Your task to perform on an android device: install app "Messenger Lite" Image 0: 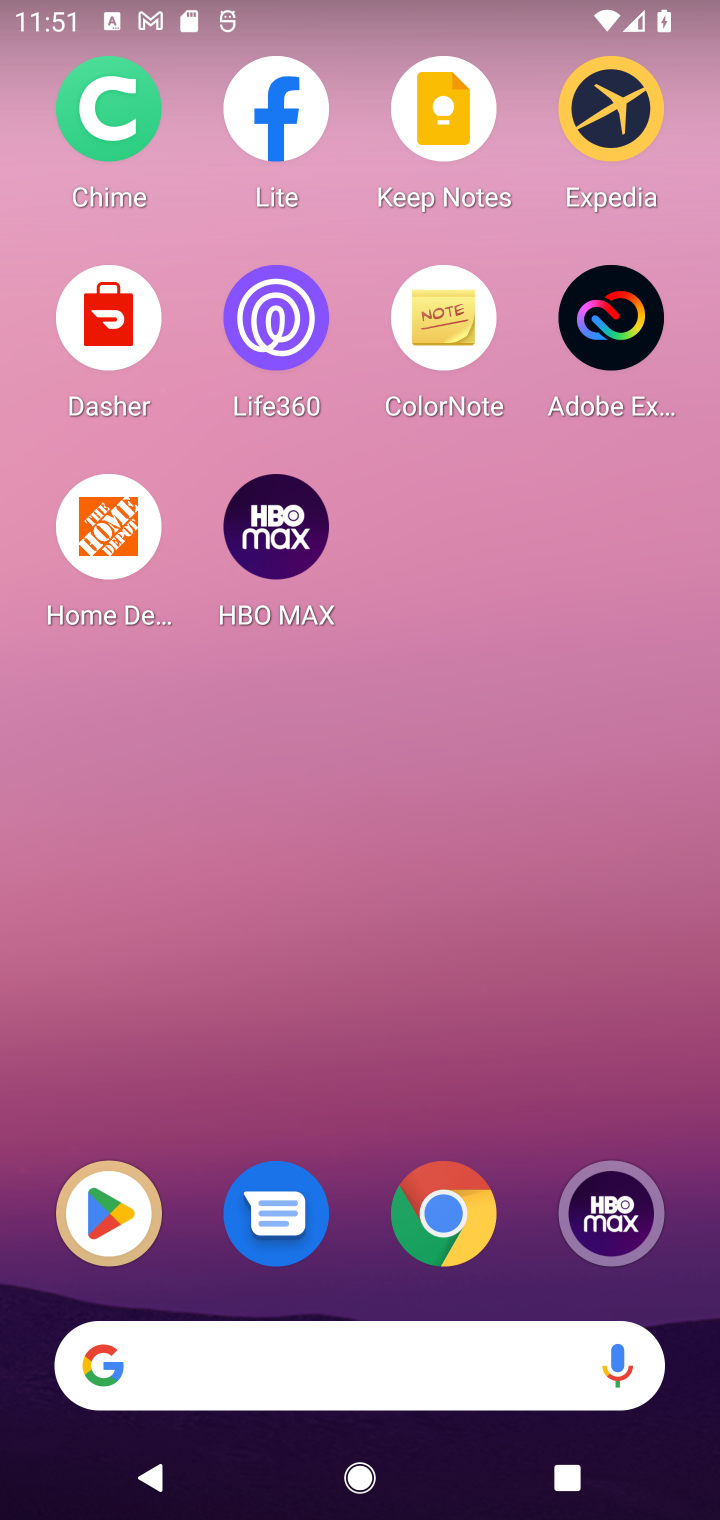
Step 0: click (107, 1233)
Your task to perform on an android device: install app "Messenger Lite" Image 1: 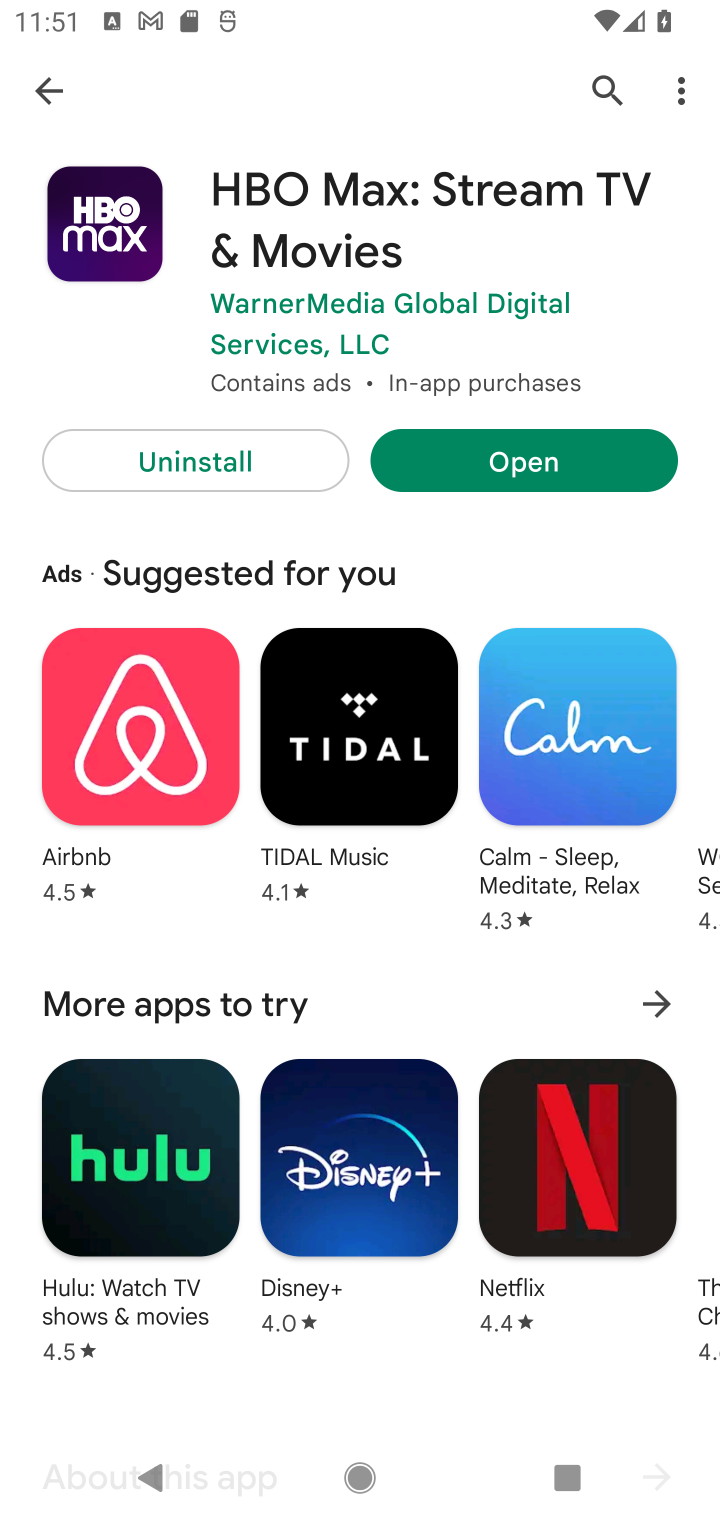
Step 1: click (38, 99)
Your task to perform on an android device: install app "Messenger Lite" Image 2: 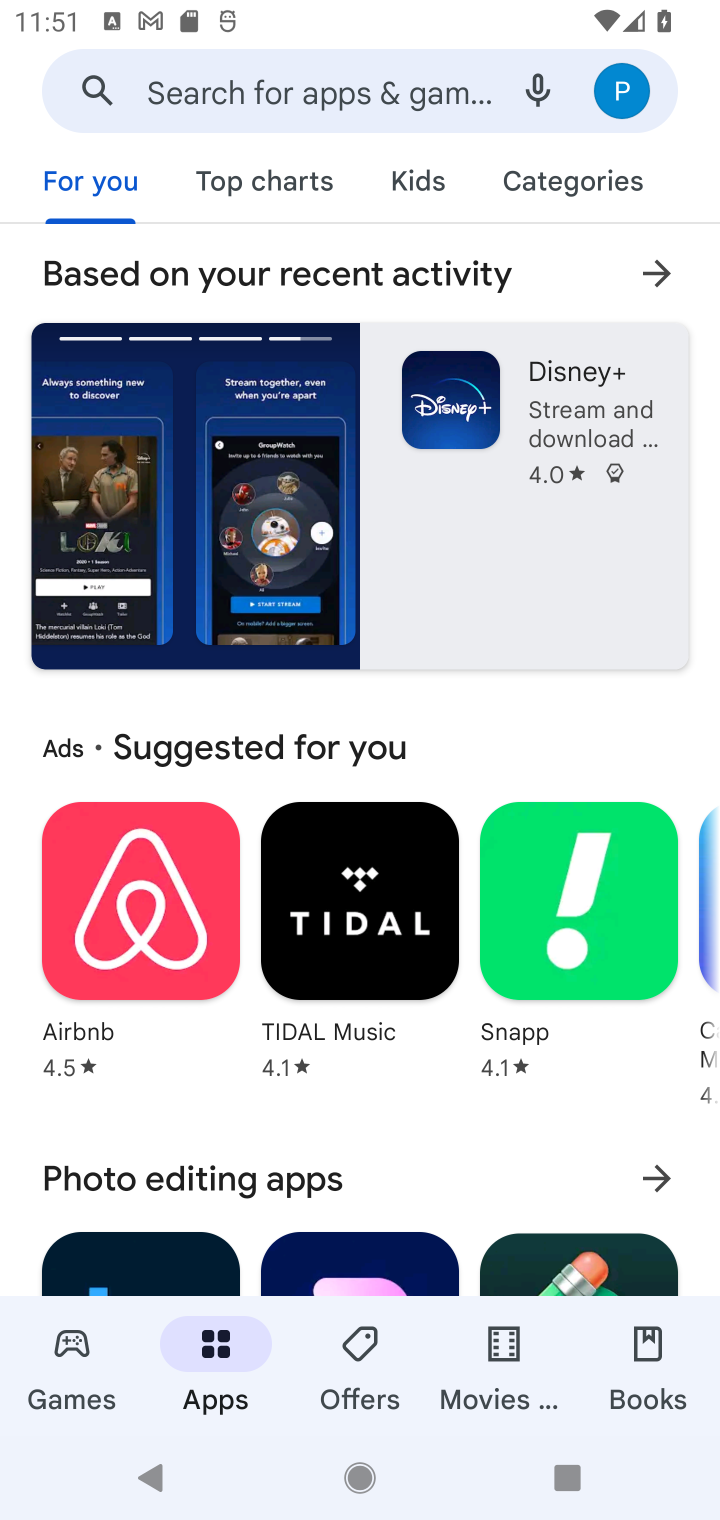
Step 2: click (311, 84)
Your task to perform on an android device: install app "Messenger Lite" Image 3: 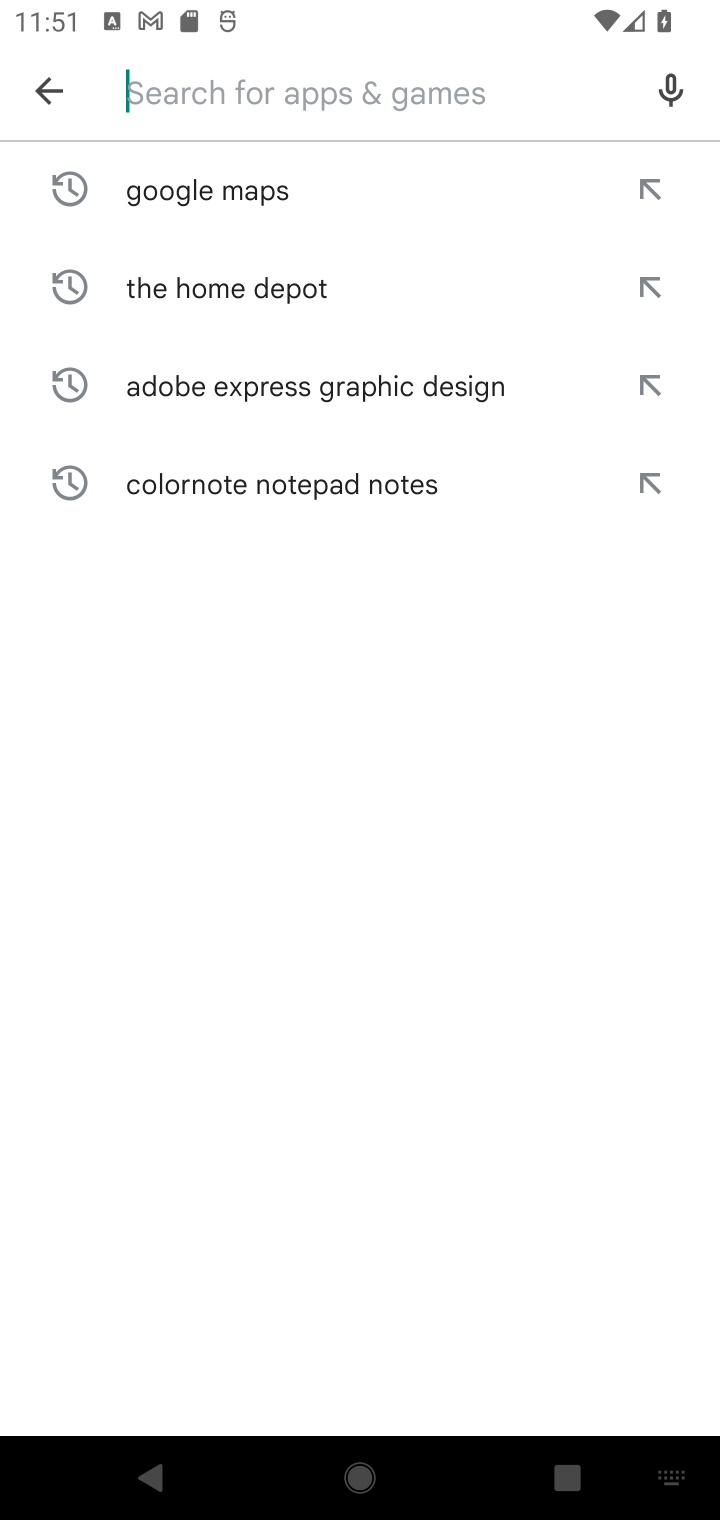
Step 3: type "Messenger Lite"
Your task to perform on an android device: install app "Messenger Lite" Image 4: 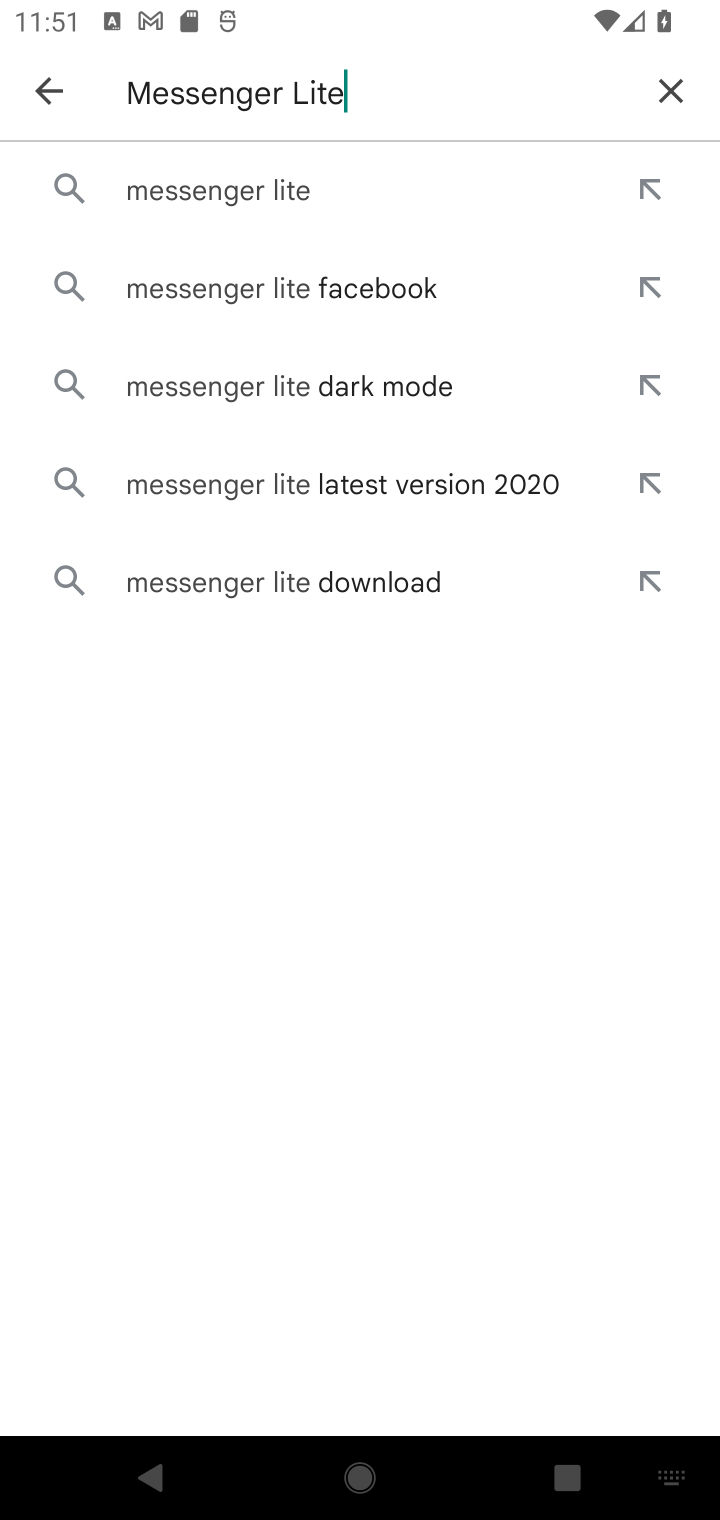
Step 4: click (261, 183)
Your task to perform on an android device: install app "Messenger Lite" Image 5: 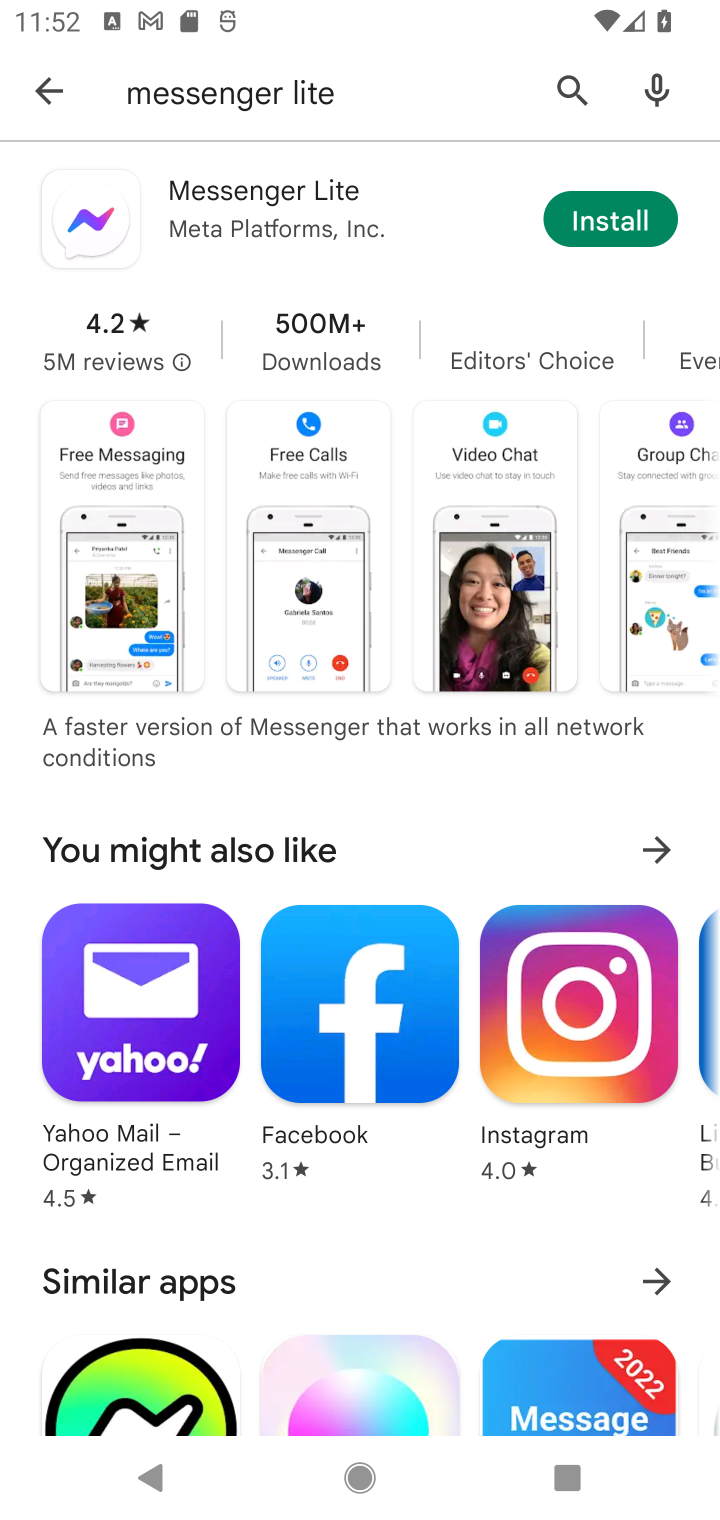
Step 5: click (595, 225)
Your task to perform on an android device: install app "Messenger Lite" Image 6: 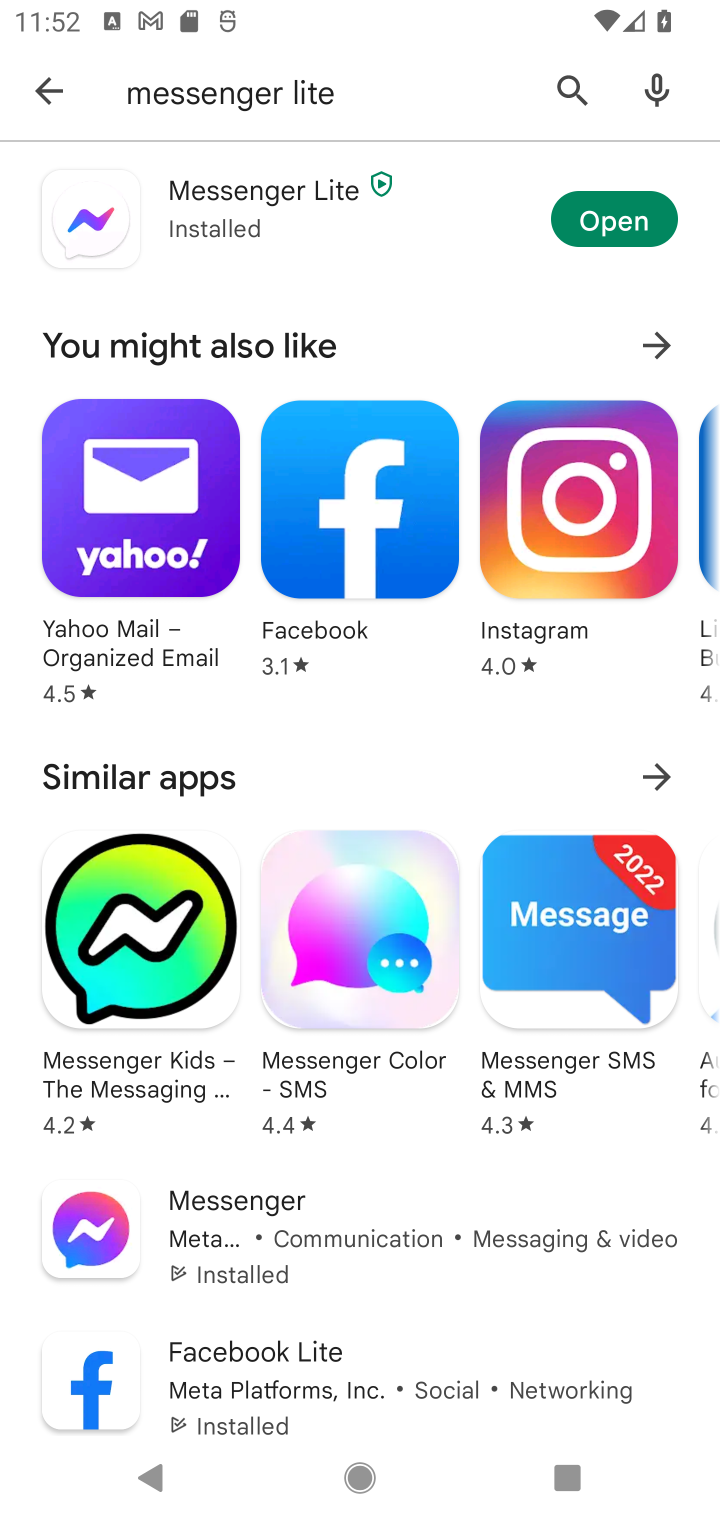
Step 6: click (606, 240)
Your task to perform on an android device: install app "Messenger Lite" Image 7: 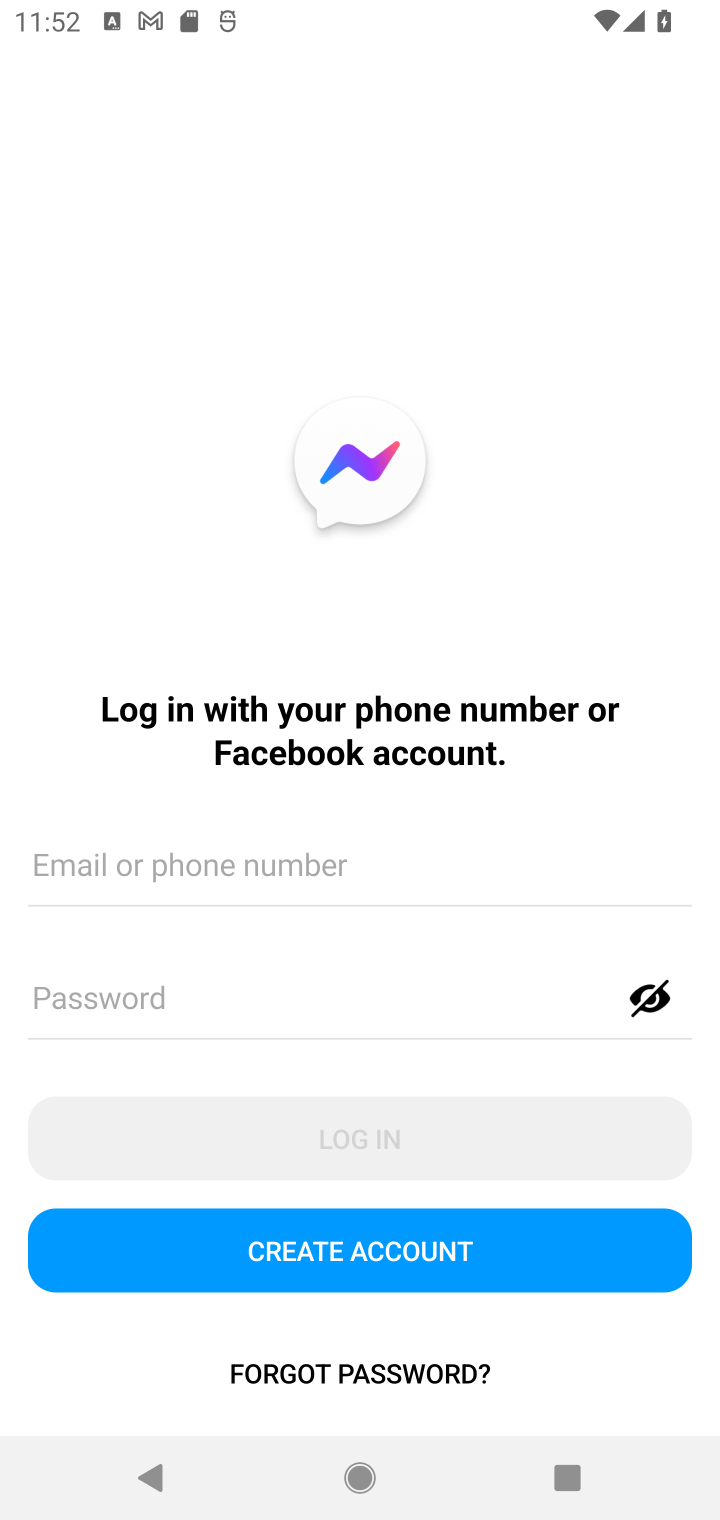
Step 7: task complete